Your task to perform on an android device: Open calendar and show me the fourth week of next month Image 0: 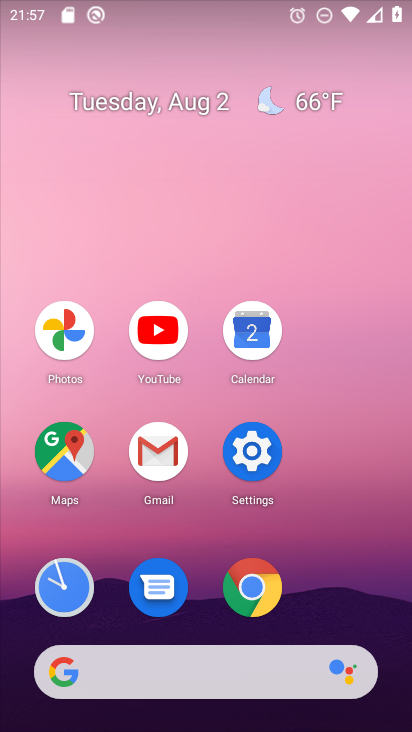
Step 0: click (250, 329)
Your task to perform on an android device: Open calendar and show me the fourth week of next month Image 1: 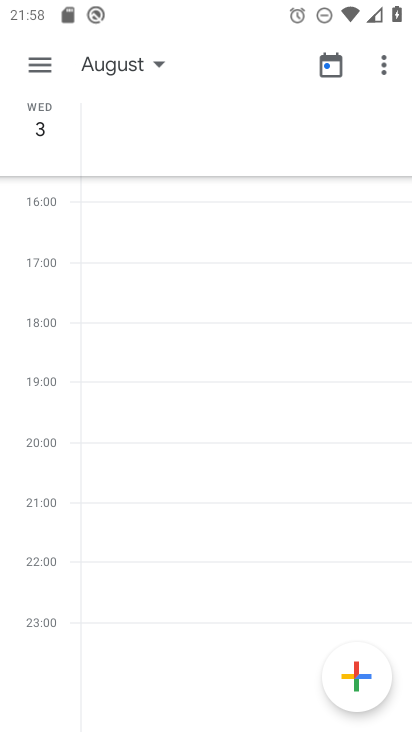
Step 1: click (160, 58)
Your task to perform on an android device: Open calendar and show me the fourth week of next month Image 2: 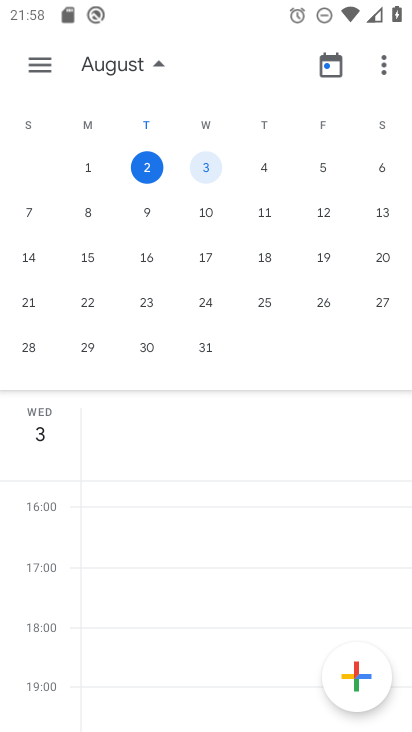
Step 2: drag from (386, 246) to (14, 259)
Your task to perform on an android device: Open calendar and show me the fourth week of next month Image 3: 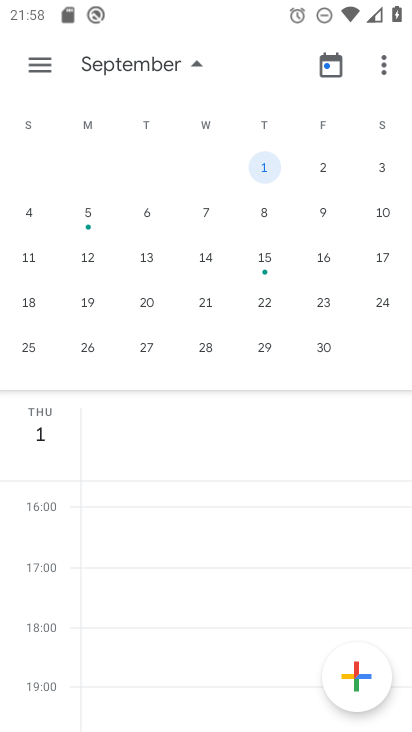
Step 3: click (146, 302)
Your task to perform on an android device: Open calendar and show me the fourth week of next month Image 4: 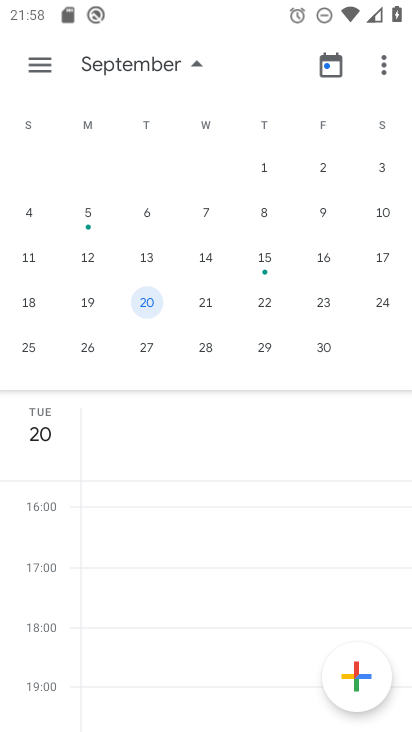
Step 4: click (35, 53)
Your task to perform on an android device: Open calendar and show me the fourth week of next month Image 5: 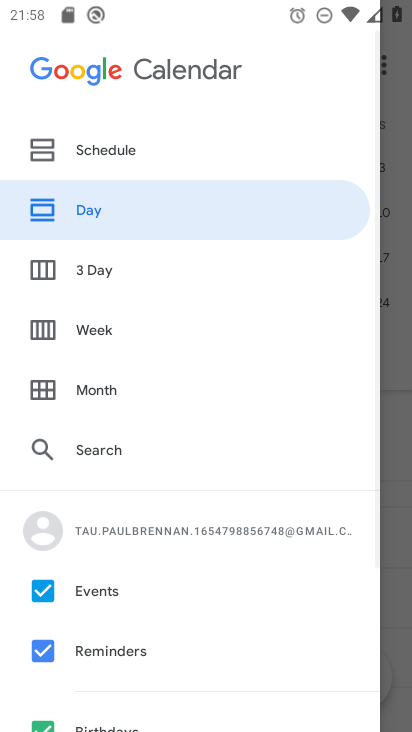
Step 5: click (93, 331)
Your task to perform on an android device: Open calendar and show me the fourth week of next month Image 6: 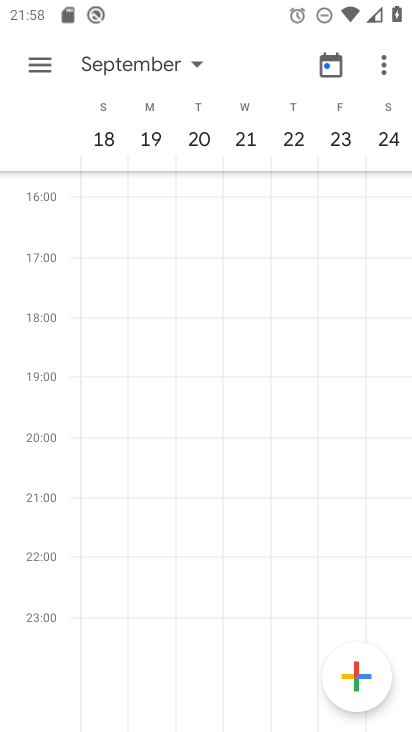
Step 6: task complete